Your task to perform on an android device: change text size in settings app Image 0: 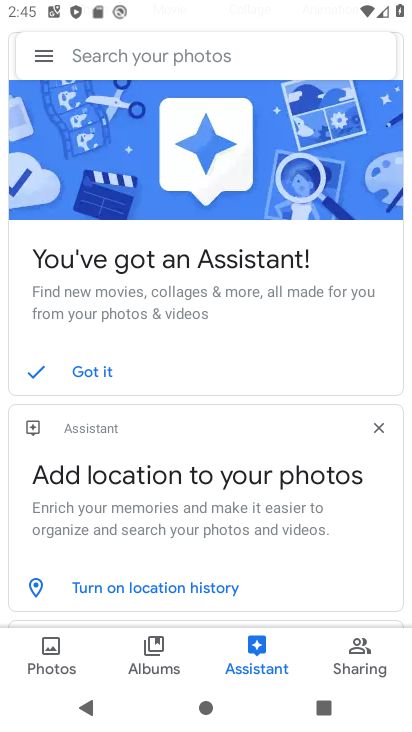
Step 0: press home button
Your task to perform on an android device: change text size in settings app Image 1: 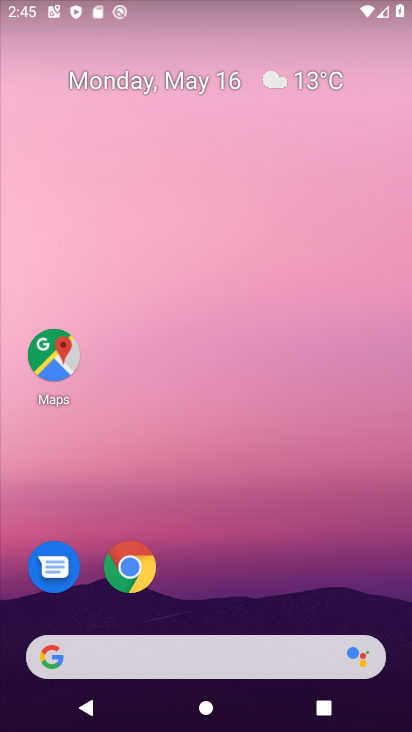
Step 1: drag from (289, 479) to (320, 56)
Your task to perform on an android device: change text size in settings app Image 2: 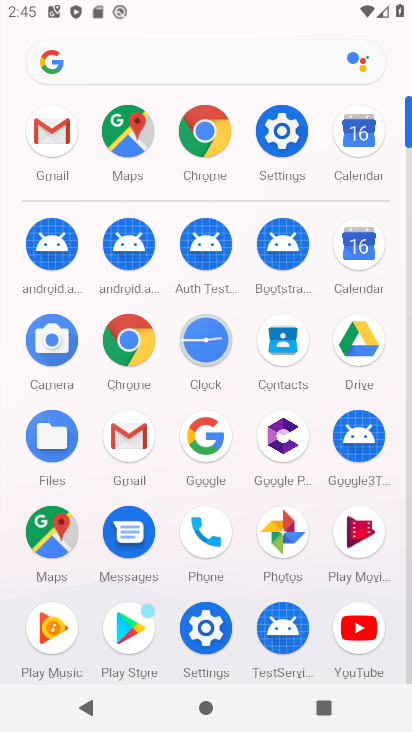
Step 2: click (281, 142)
Your task to perform on an android device: change text size in settings app Image 3: 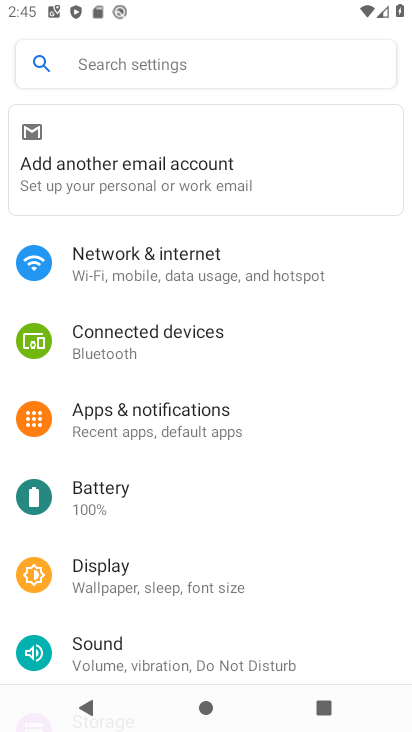
Step 3: click (163, 573)
Your task to perform on an android device: change text size in settings app Image 4: 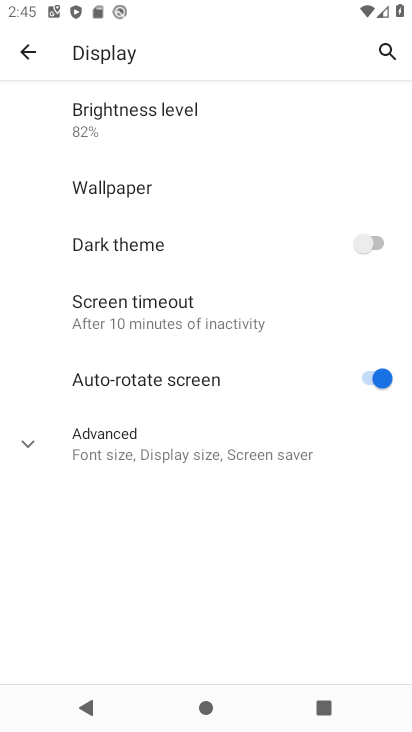
Step 4: click (148, 441)
Your task to perform on an android device: change text size in settings app Image 5: 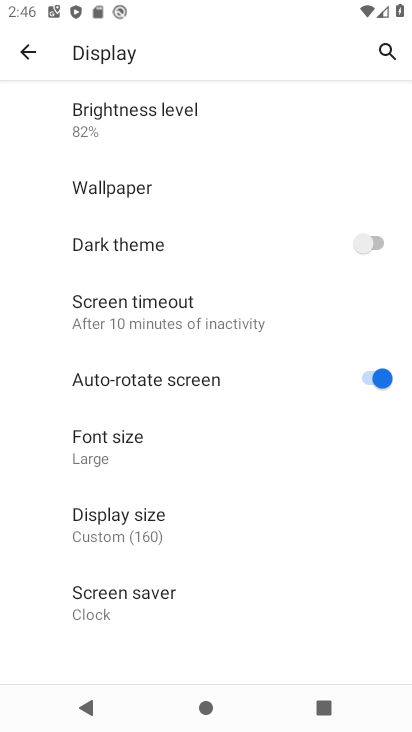
Step 5: click (148, 441)
Your task to perform on an android device: change text size in settings app Image 6: 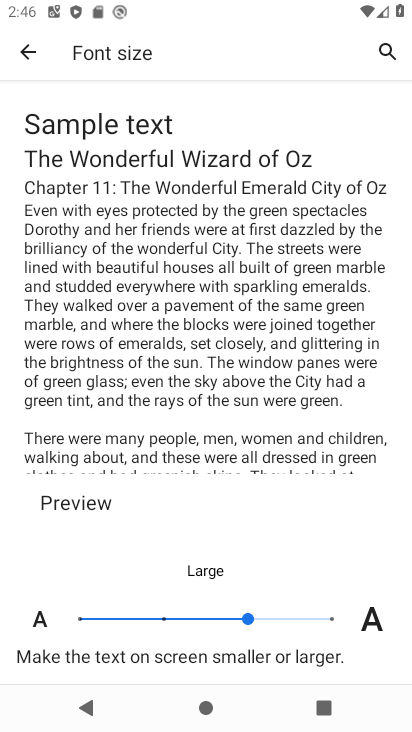
Step 6: click (69, 616)
Your task to perform on an android device: change text size in settings app Image 7: 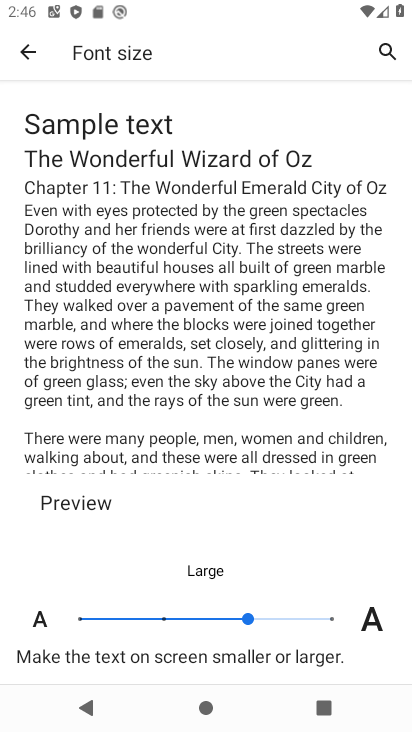
Step 7: click (81, 614)
Your task to perform on an android device: change text size in settings app Image 8: 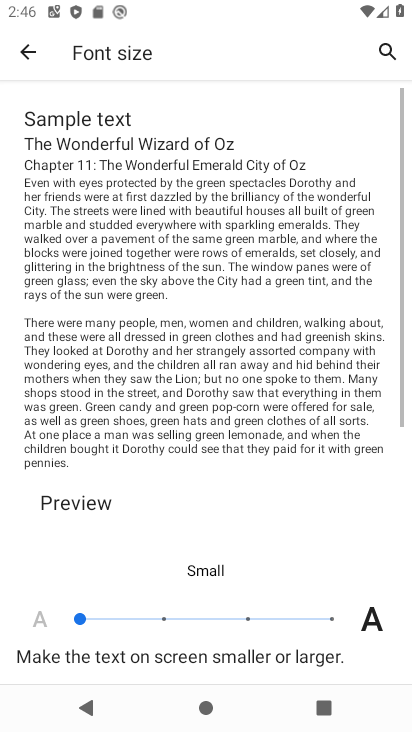
Step 8: click (81, 614)
Your task to perform on an android device: change text size in settings app Image 9: 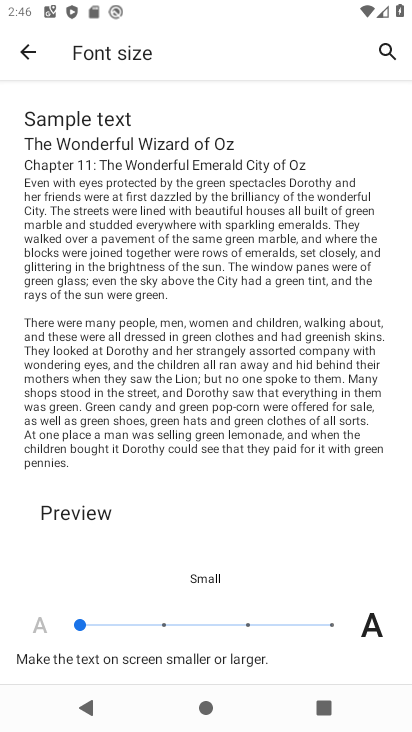
Step 9: task complete